Your task to perform on an android device: change the upload size in google photos Image 0: 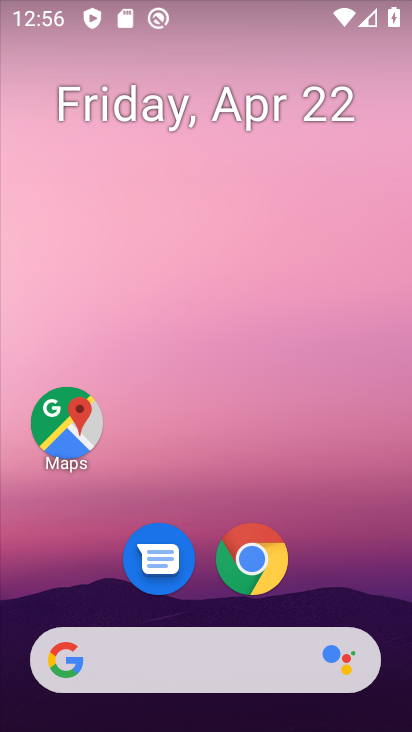
Step 0: drag from (353, 610) to (294, 151)
Your task to perform on an android device: change the upload size in google photos Image 1: 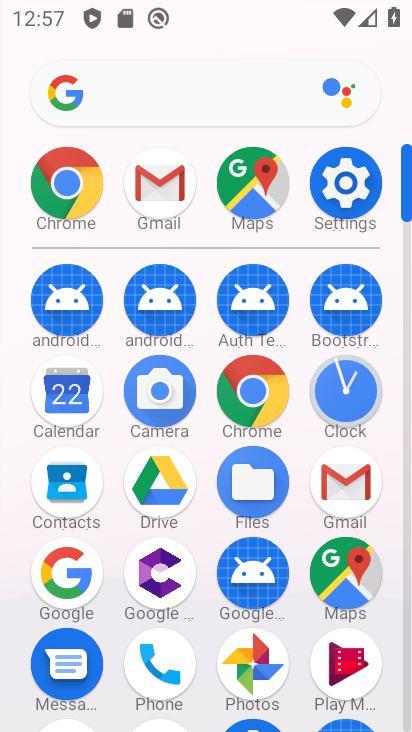
Step 1: click (256, 644)
Your task to perform on an android device: change the upload size in google photos Image 2: 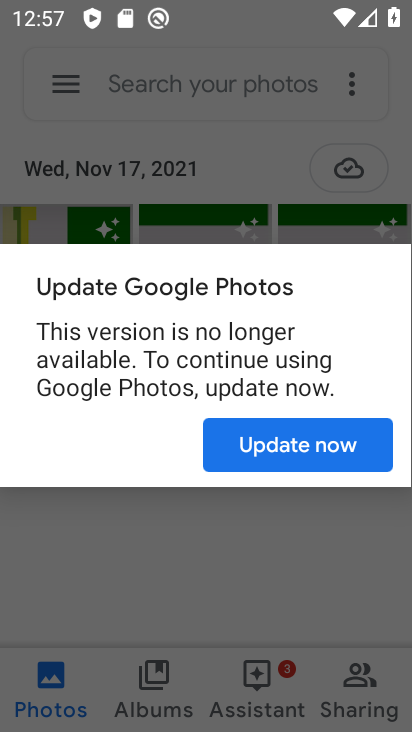
Step 2: press back button
Your task to perform on an android device: change the upload size in google photos Image 3: 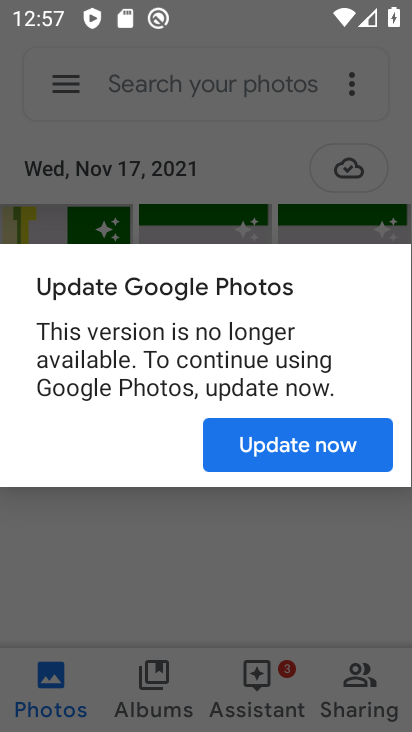
Step 3: click (322, 449)
Your task to perform on an android device: change the upload size in google photos Image 4: 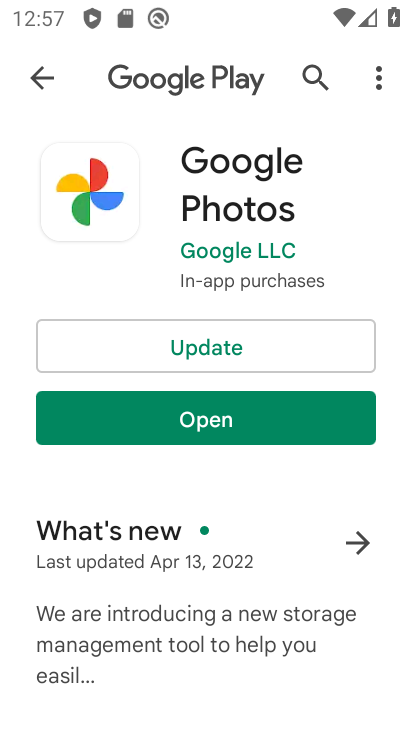
Step 4: click (221, 350)
Your task to perform on an android device: change the upload size in google photos Image 5: 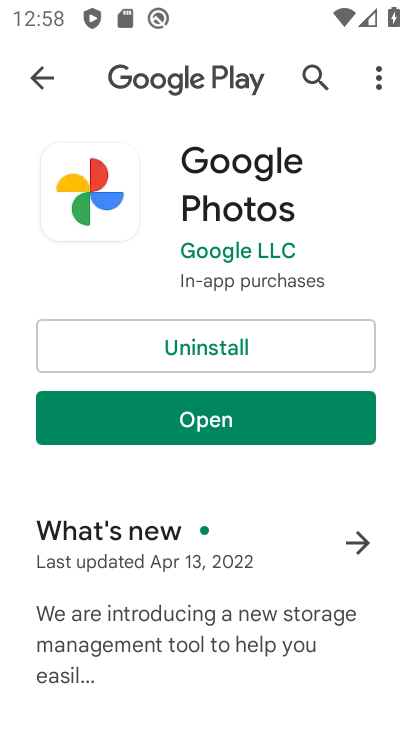
Step 5: click (225, 404)
Your task to perform on an android device: change the upload size in google photos Image 6: 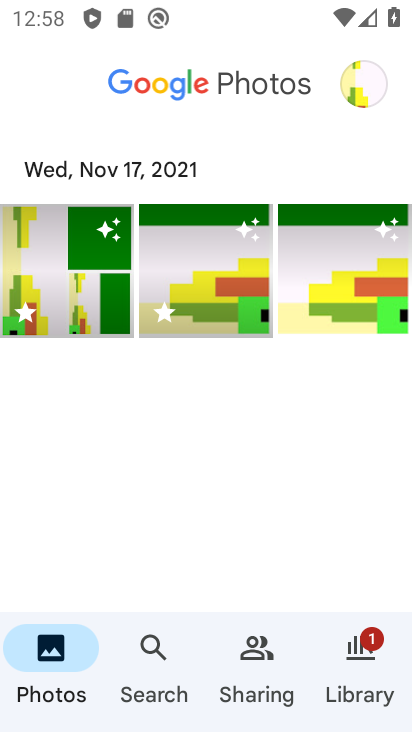
Step 6: click (368, 83)
Your task to perform on an android device: change the upload size in google photos Image 7: 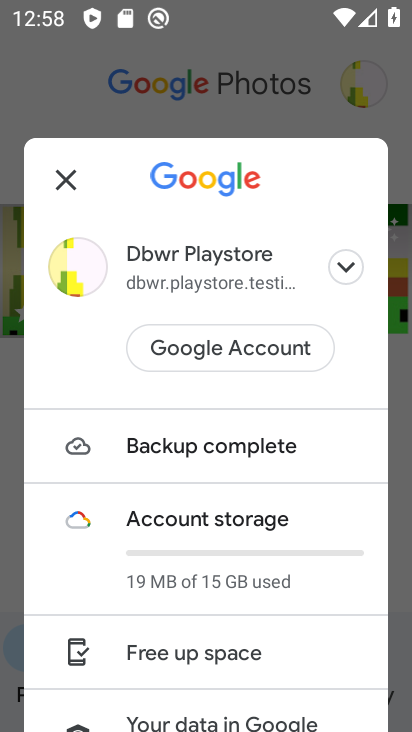
Step 7: drag from (196, 610) to (226, 252)
Your task to perform on an android device: change the upload size in google photos Image 8: 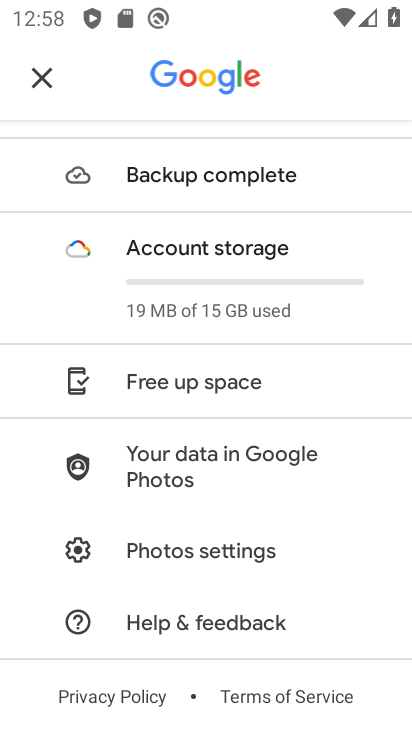
Step 8: click (215, 550)
Your task to perform on an android device: change the upload size in google photos Image 9: 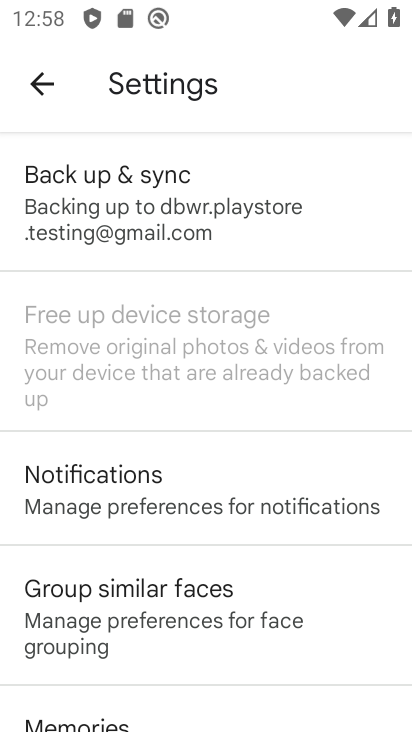
Step 9: click (157, 253)
Your task to perform on an android device: change the upload size in google photos Image 10: 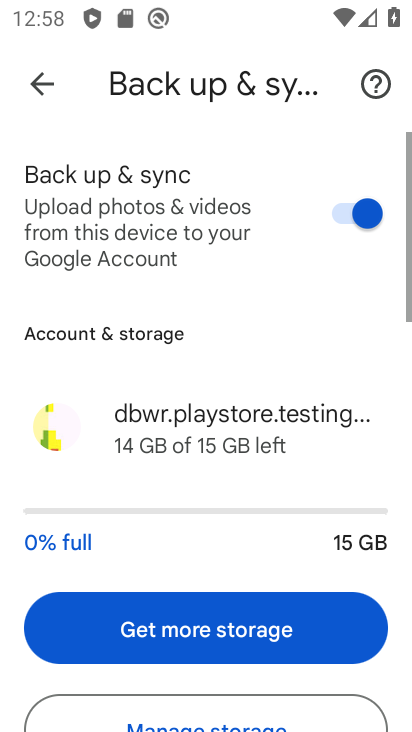
Step 10: drag from (145, 584) to (242, 199)
Your task to perform on an android device: change the upload size in google photos Image 11: 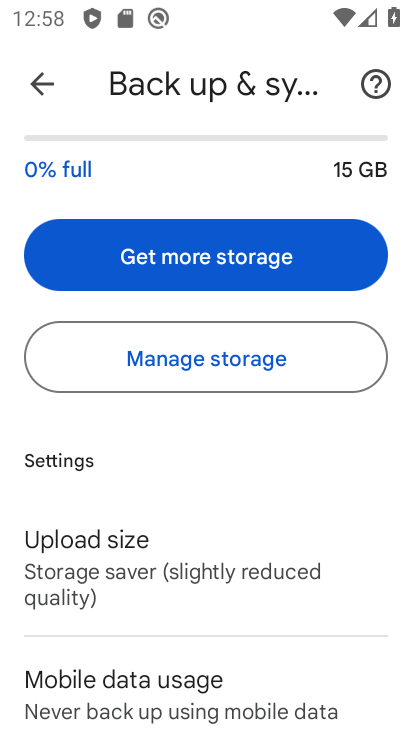
Step 11: click (206, 568)
Your task to perform on an android device: change the upload size in google photos Image 12: 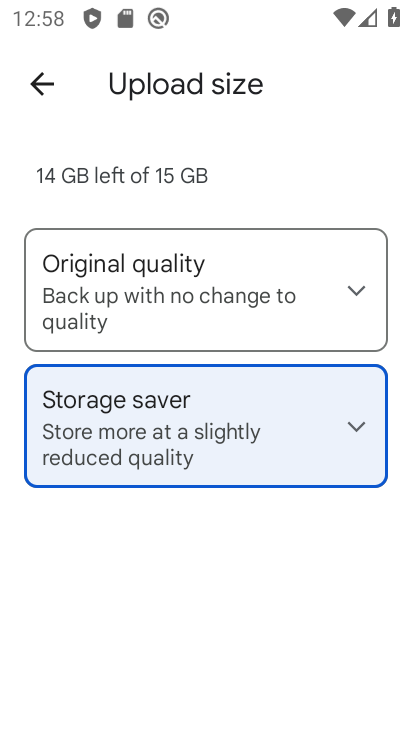
Step 12: click (355, 288)
Your task to perform on an android device: change the upload size in google photos Image 13: 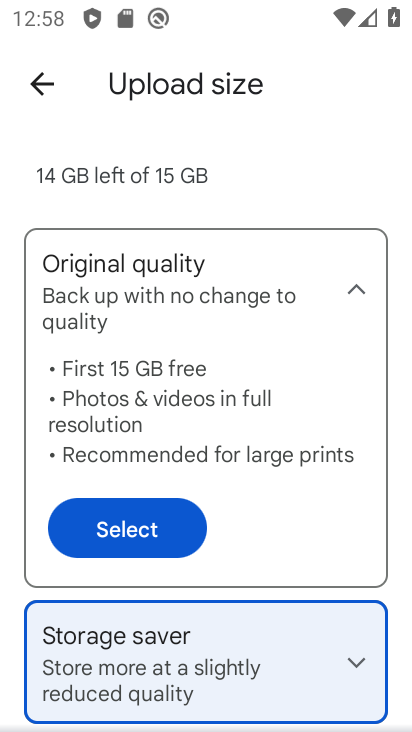
Step 13: click (124, 532)
Your task to perform on an android device: change the upload size in google photos Image 14: 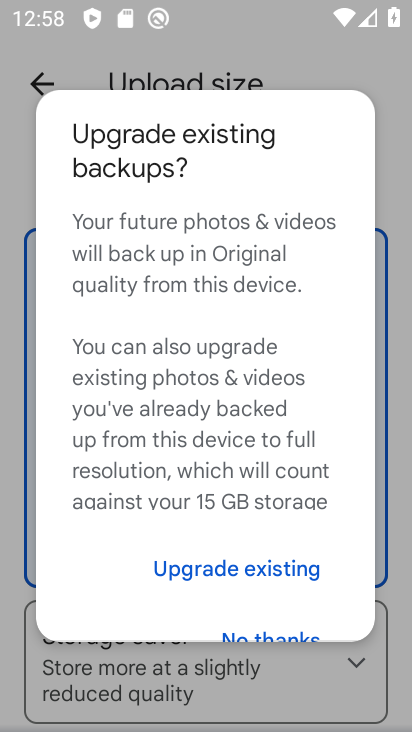
Step 14: click (282, 570)
Your task to perform on an android device: change the upload size in google photos Image 15: 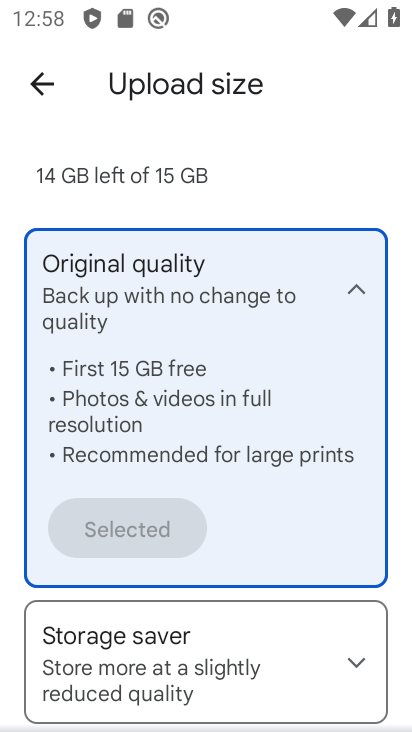
Step 15: task complete